Your task to perform on an android device: Show me the alarms in the clock app Image 0: 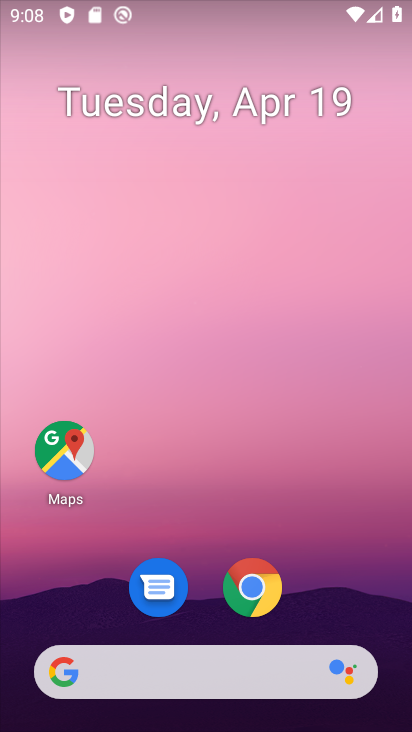
Step 0: drag from (301, 539) to (297, 229)
Your task to perform on an android device: Show me the alarms in the clock app Image 1: 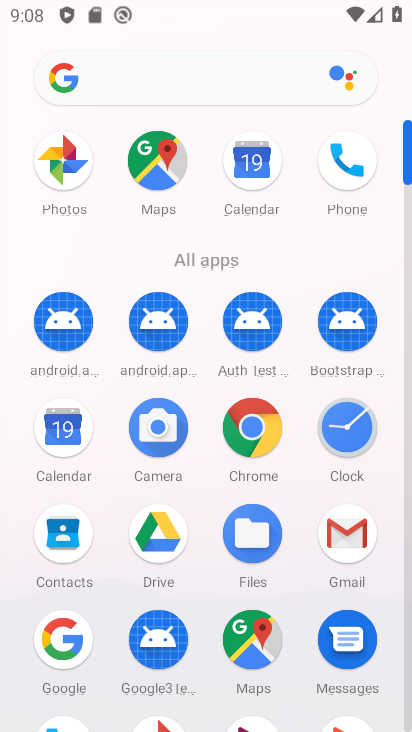
Step 1: click (347, 437)
Your task to perform on an android device: Show me the alarms in the clock app Image 2: 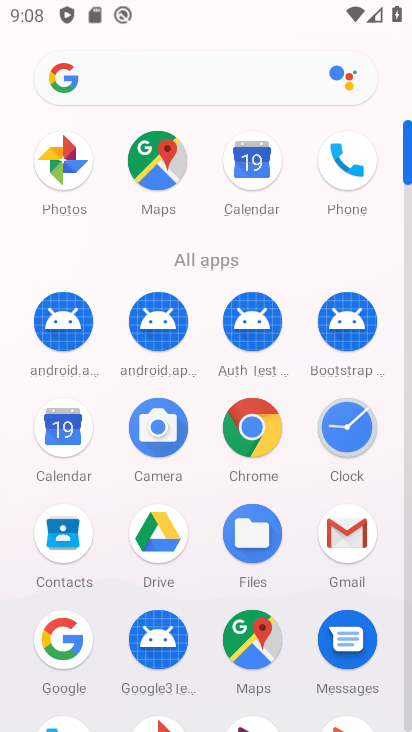
Step 2: click (347, 437)
Your task to perform on an android device: Show me the alarms in the clock app Image 3: 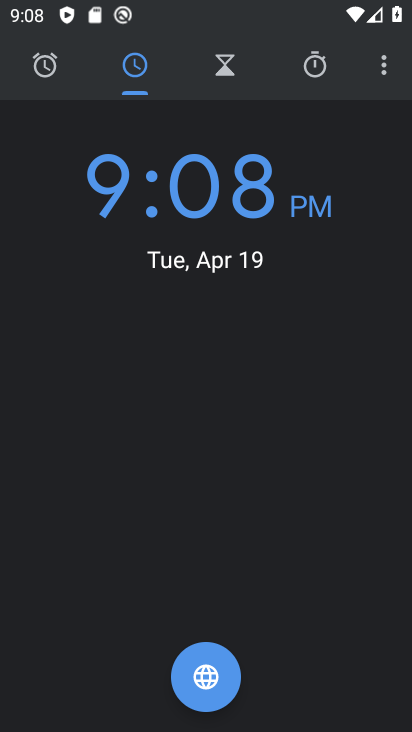
Step 3: click (50, 80)
Your task to perform on an android device: Show me the alarms in the clock app Image 4: 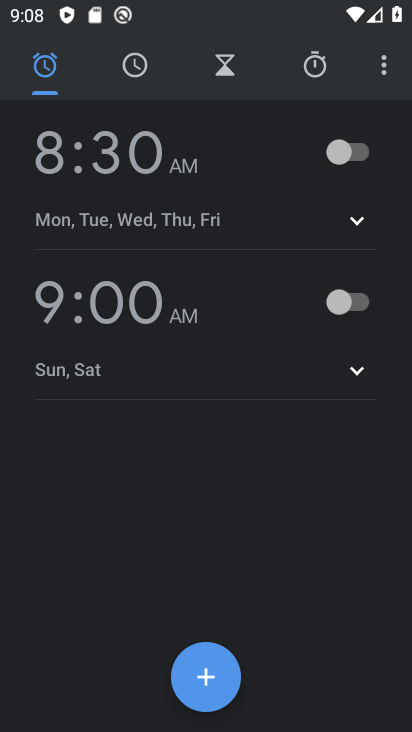
Step 4: task complete